Your task to perform on an android device: check data usage Image 0: 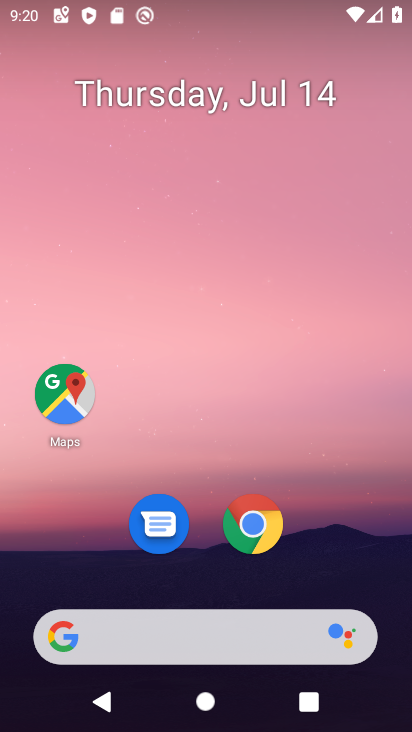
Step 0: drag from (312, 491) to (285, 53)
Your task to perform on an android device: check data usage Image 1: 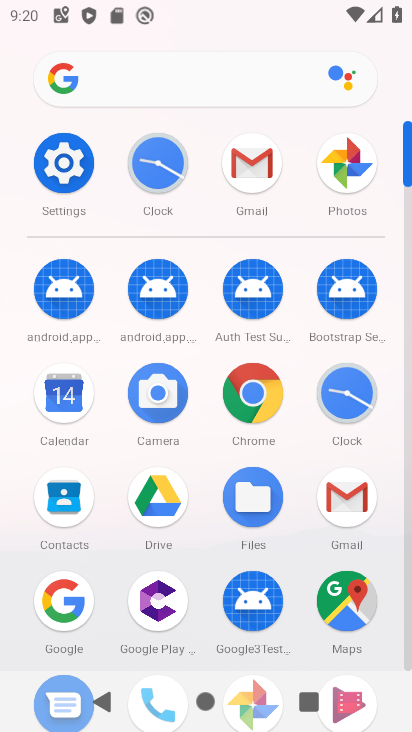
Step 1: click (76, 172)
Your task to perform on an android device: check data usage Image 2: 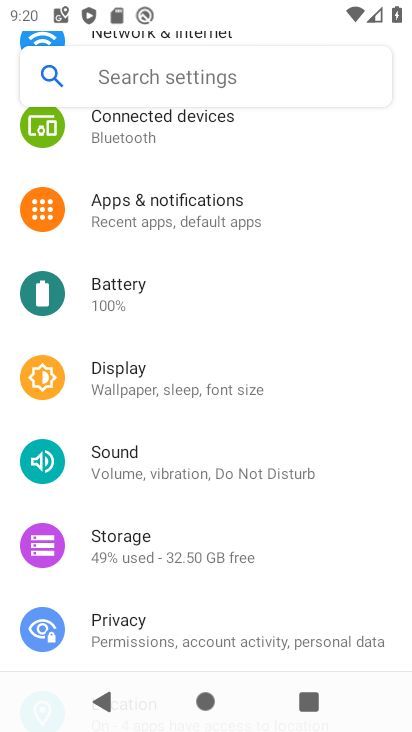
Step 2: drag from (236, 300) to (262, 572)
Your task to perform on an android device: check data usage Image 3: 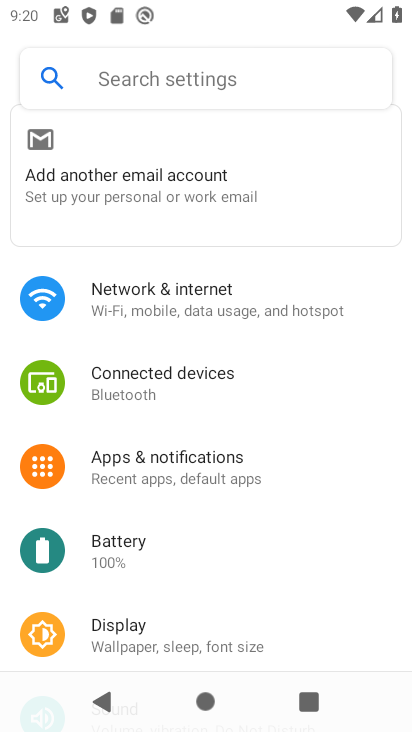
Step 3: click (234, 295)
Your task to perform on an android device: check data usage Image 4: 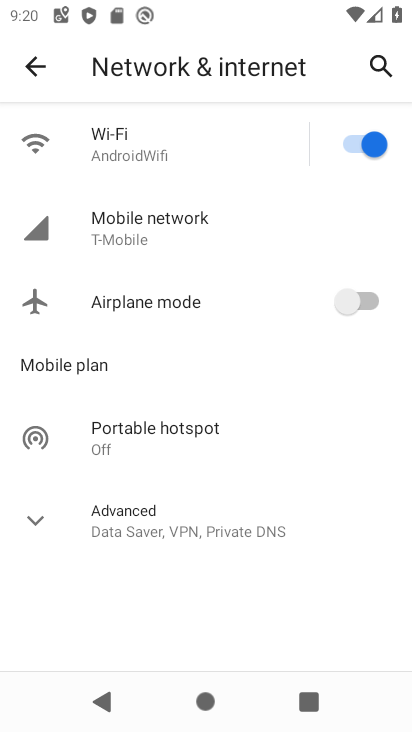
Step 4: click (206, 226)
Your task to perform on an android device: check data usage Image 5: 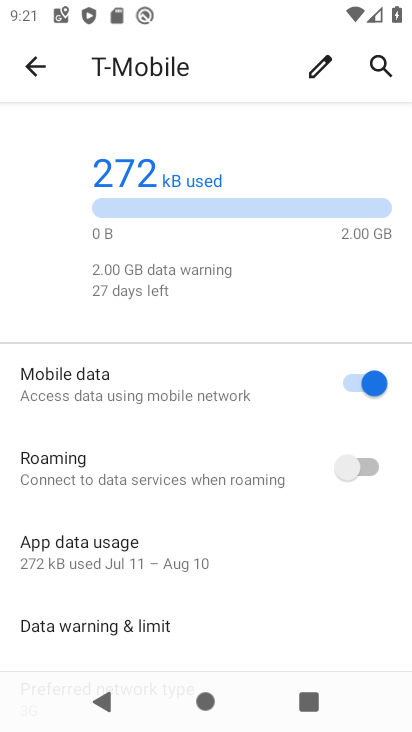
Step 5: task complete